Your task to perform on an android device: Open network settings Image 0: 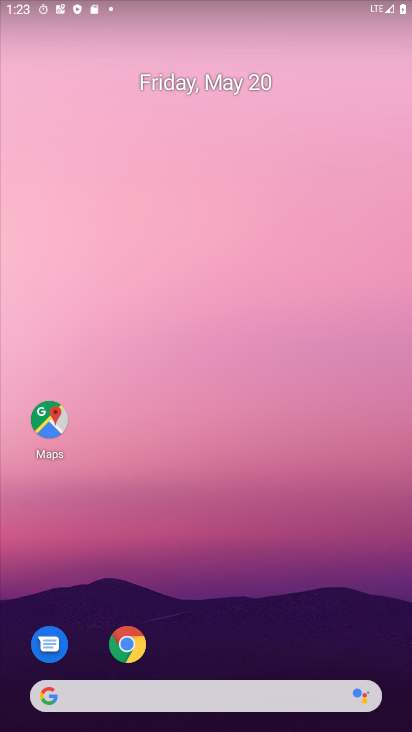
Step 0: drag from (225, 334) to (288, 52)
Your task to perform on an android device: Open network settings Image 1: 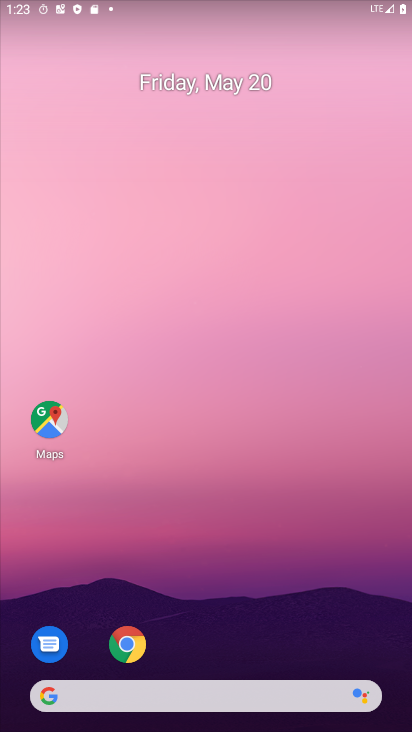
Step 1: drag from (311, 464) to (373, 40)
Your task to perform on an android device: Open network settings Image 2: 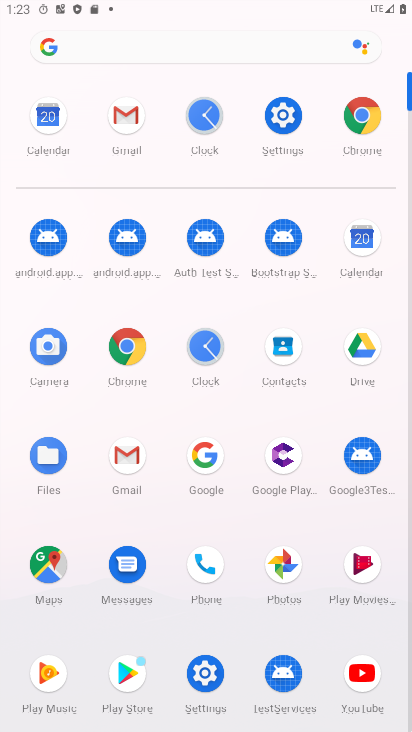
Step 2: click (264, 121)
Your task to perform on an android device: Open network settings Image 3: 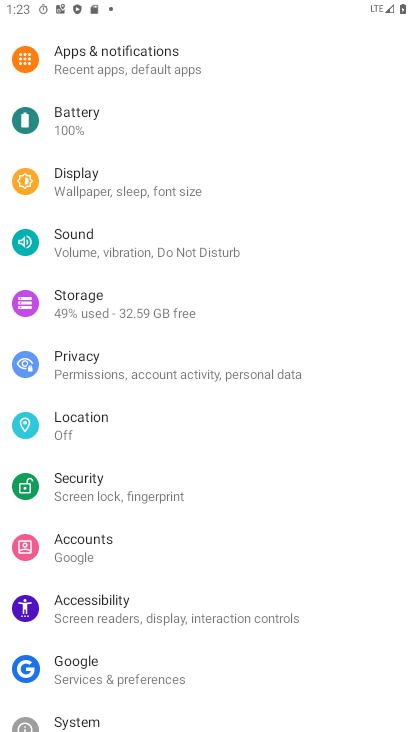
Step 3: drag from (301, 114) to (277, 633)
Your task to perform on an android device: Open network settings Image 4: 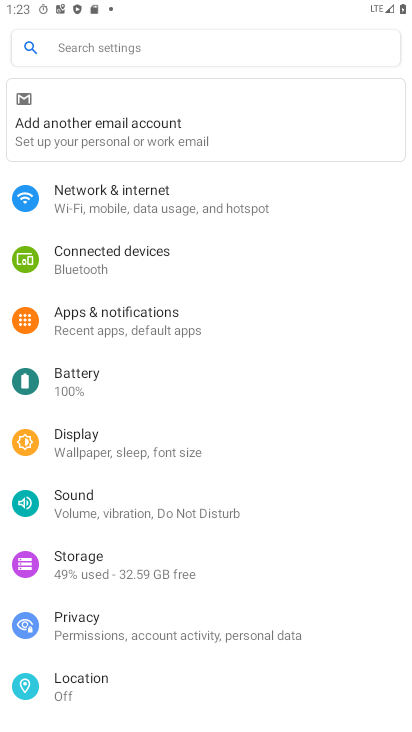
Step 4: click (148, 198)
Your task to perform on an android device: Open network settings Image 5: 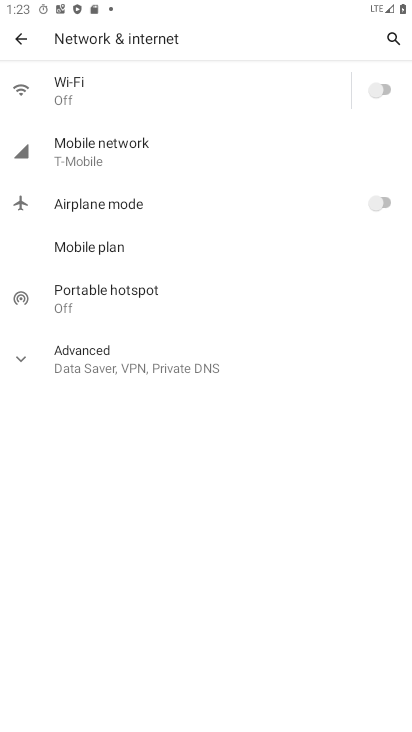
Step 5: task complete